Your task to perform on an android device: find snoozed emails in the gmail app Image 0: 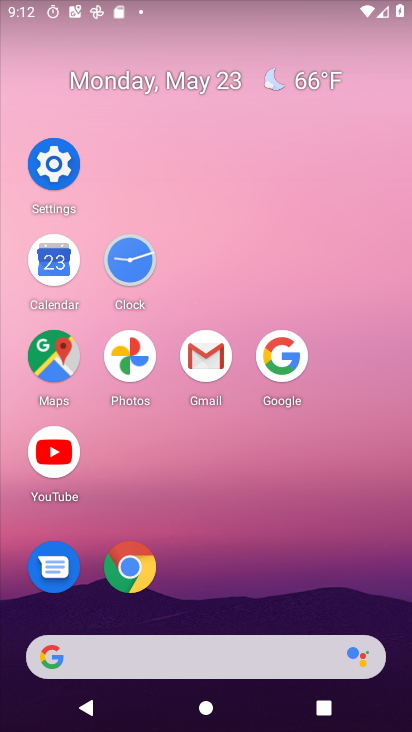
Step 0: click (209, 366)
Your task to perform on an android device: find snoozed emails in the gmail app Image 1: 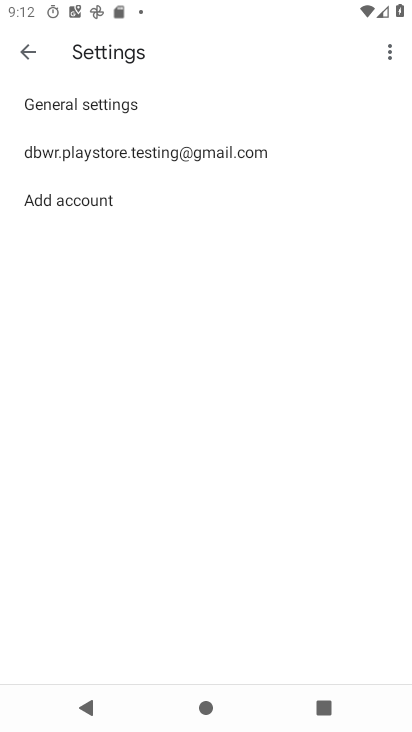
Step 1: click (28, 58)
Your task to perform on an android device: find snoozed emails in the gmail app Image 2: 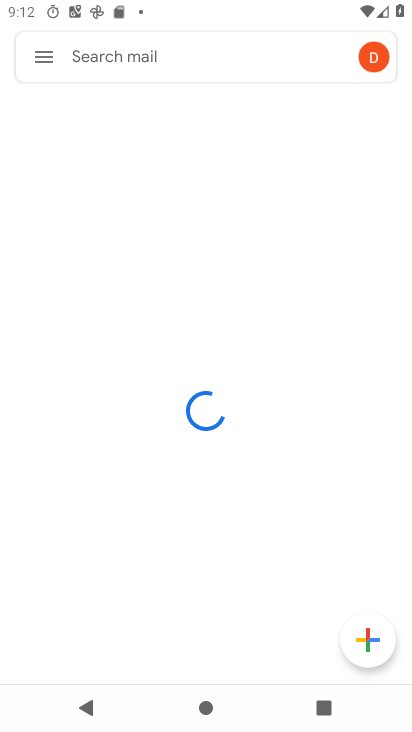
Step 2: click (48, 69)
Your task to perform on an android device: find snoozed emails in the gmail app Image 3: 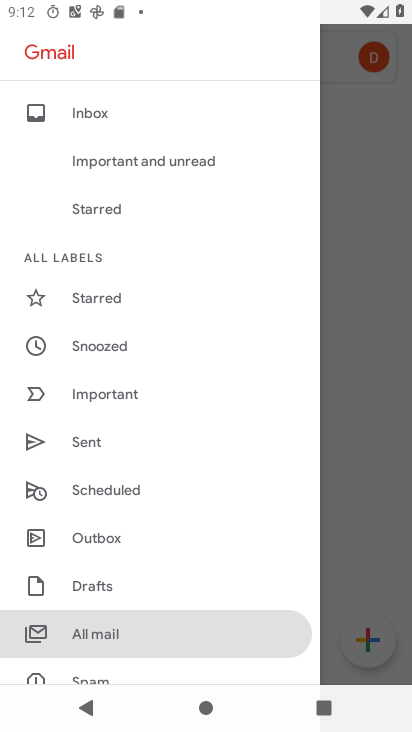
Step 3: click (161, 346)
Your task to perform on an android device: find snoozed emails in the gmail app Image 4: 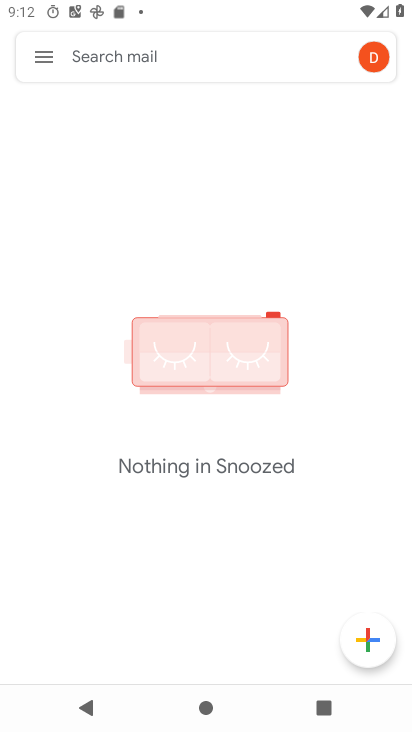
Step 4: task complete